Your task to perform on an android device: Open the web browser Image 0: 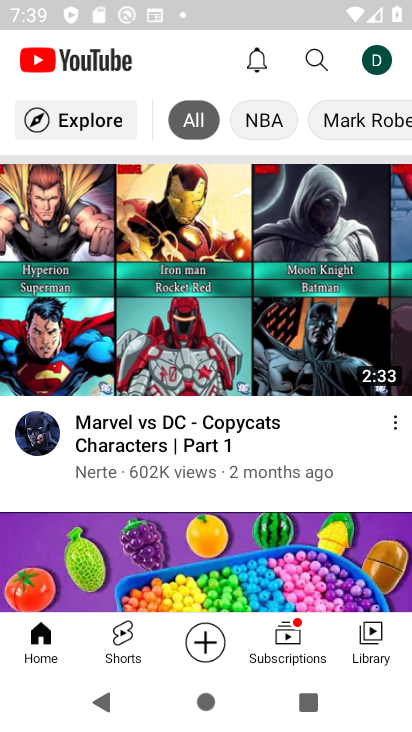
Step 0: press home button
Your task to perform on an android device: Open the web browser Image 1: 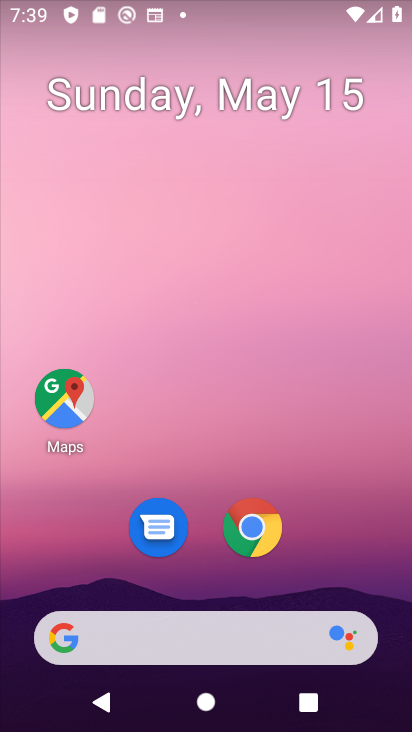
Step 1: click (233, 547)
Your task to perform on an android device: Open the web browser Image 2: 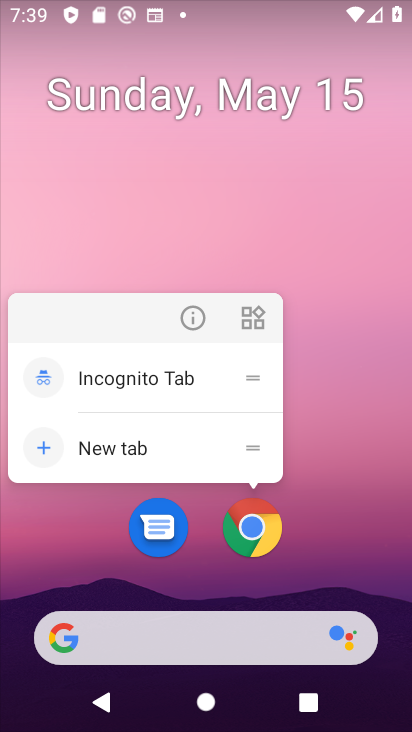
Step 2: click (233, 535)
Your task to perform on an android device: Open the web browser Image 3: 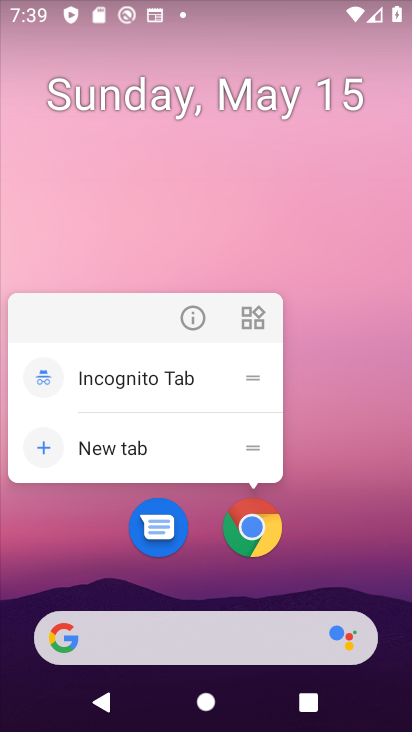
Step 3: click (257, 531)
Your task to perform on an android device: Open the web browser Image 4: 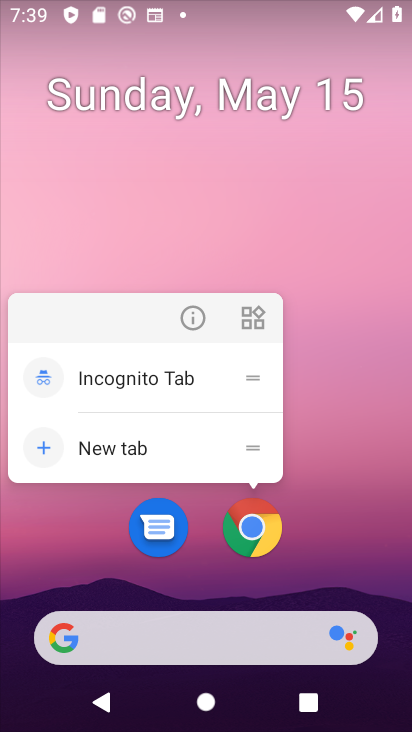
Step 4: click (258, 544)
Your task to perform on an android device: Open the web browser Image 5: 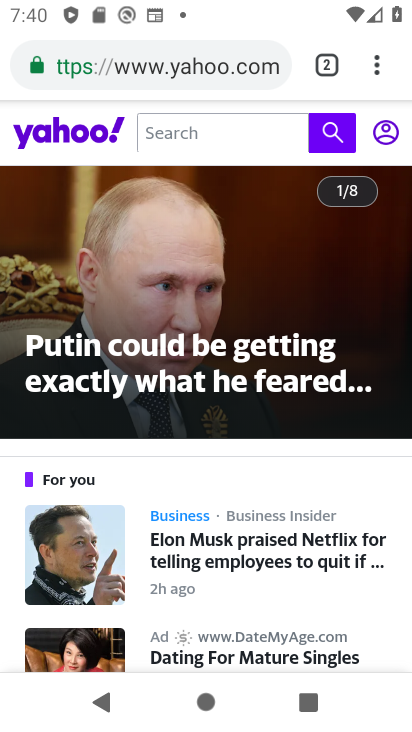
Step 5: task complete